Your task to perform on an android device: Open CNN.com Image 0: 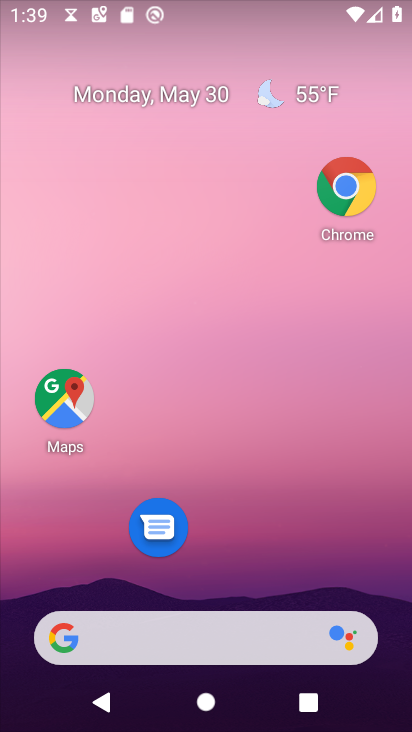
Step 0: drag from (185, 550) to (337, 288)
Your task to perform on an android device: Open CNN.com Image 1: 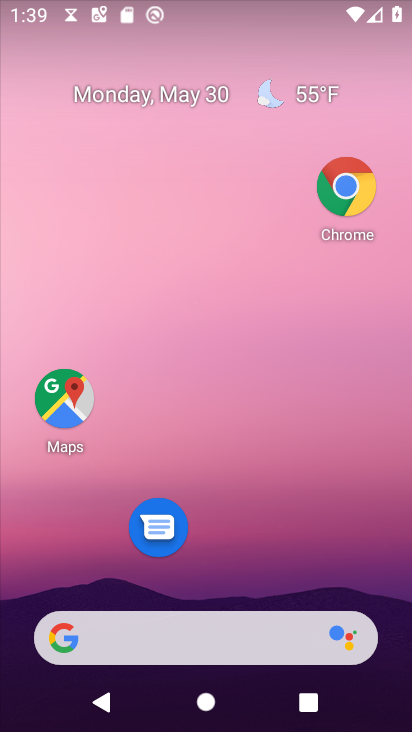
Step 1: drag from (181, 557) to (224, 62)
Your task to perform on an android device: Open CNN.com Image 2: 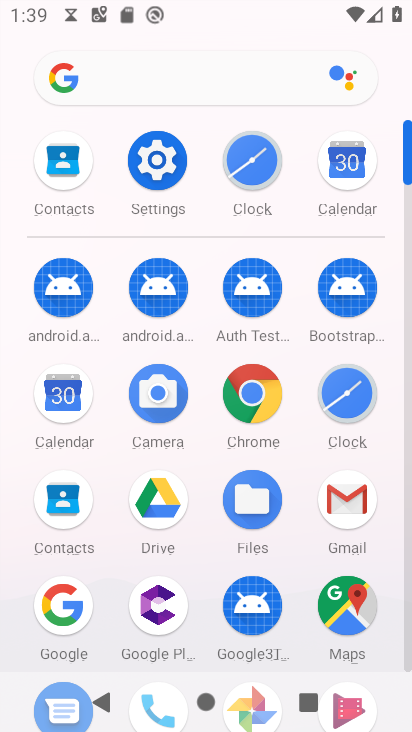
Step 2: click (134, 83)
Your task to perform on an android device: Open CNN.com Image 3: 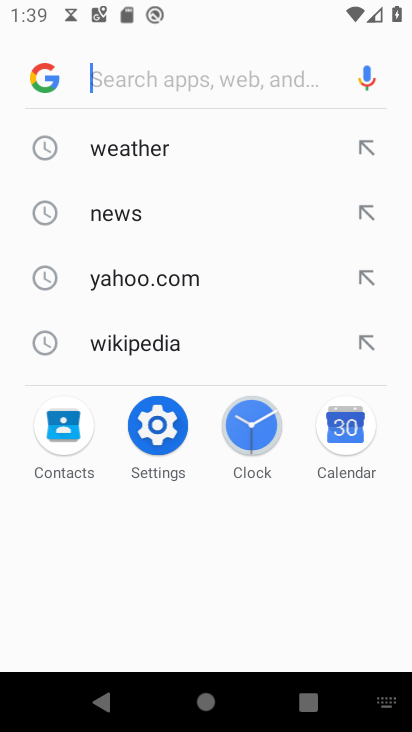
Step 3: type "CNN.com"
Your task to perform on an android device: Open CNN.com Image 4: 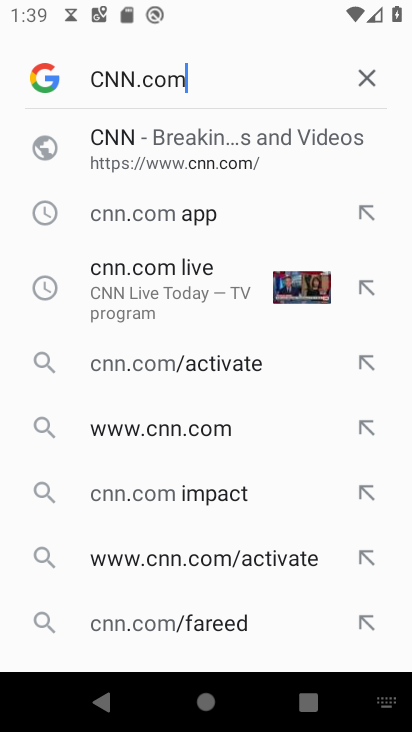
Step 4: click (151, 147)
Your task to perform on an android device: Open CNN.com Image 5: 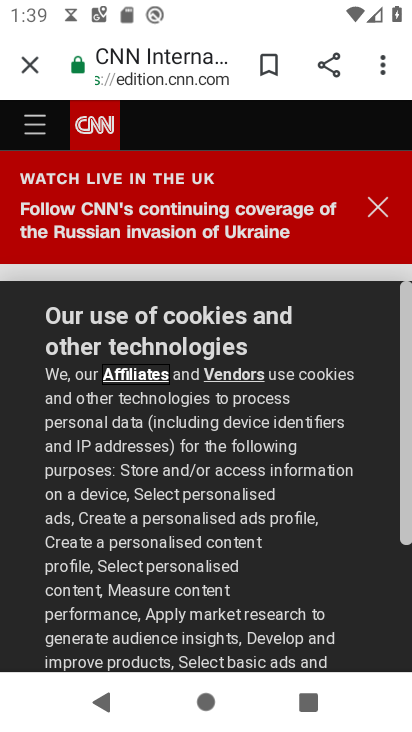
Step 5: task complete